Your task to perform on an android device: Show me popular videos on Youtube Image 0: 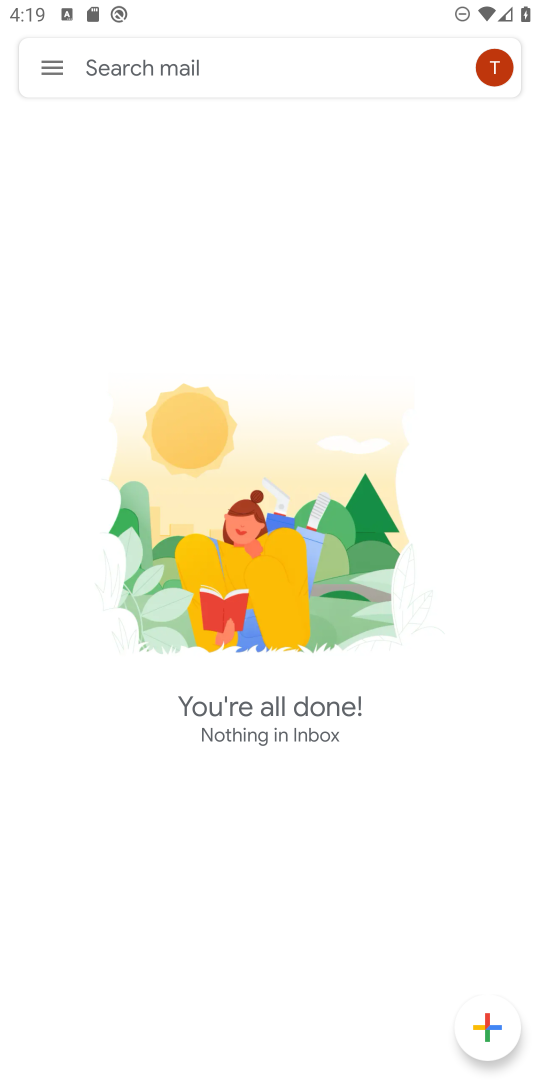
Step 0: press home button
Your task to perform on an android device: Show me popular videos on Youtube Image 1: 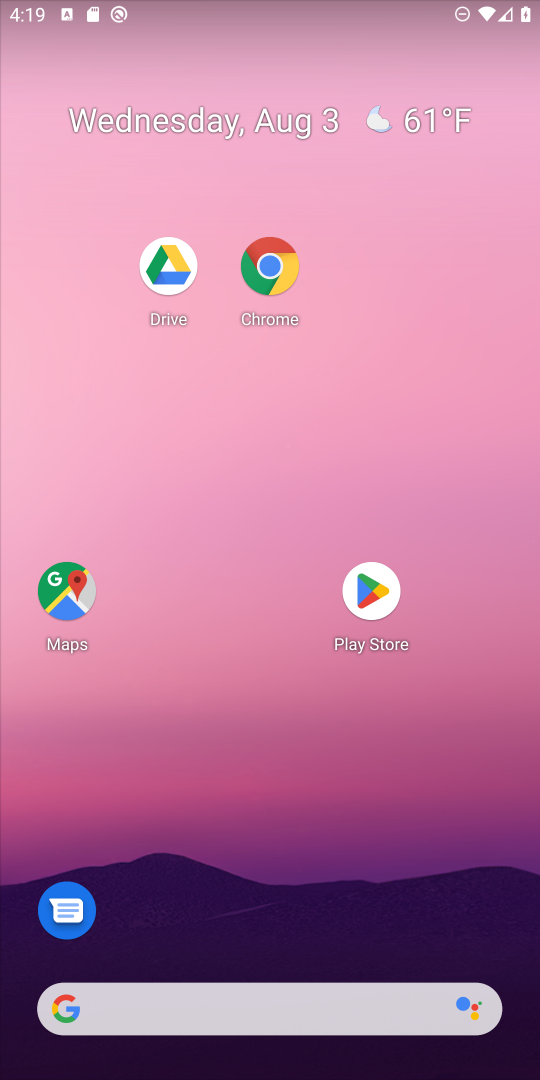
Step 1: drag from (367, 989) to (538, 866)
Your task to perform on an android device: Show me popular videos on Youtube Image 2: 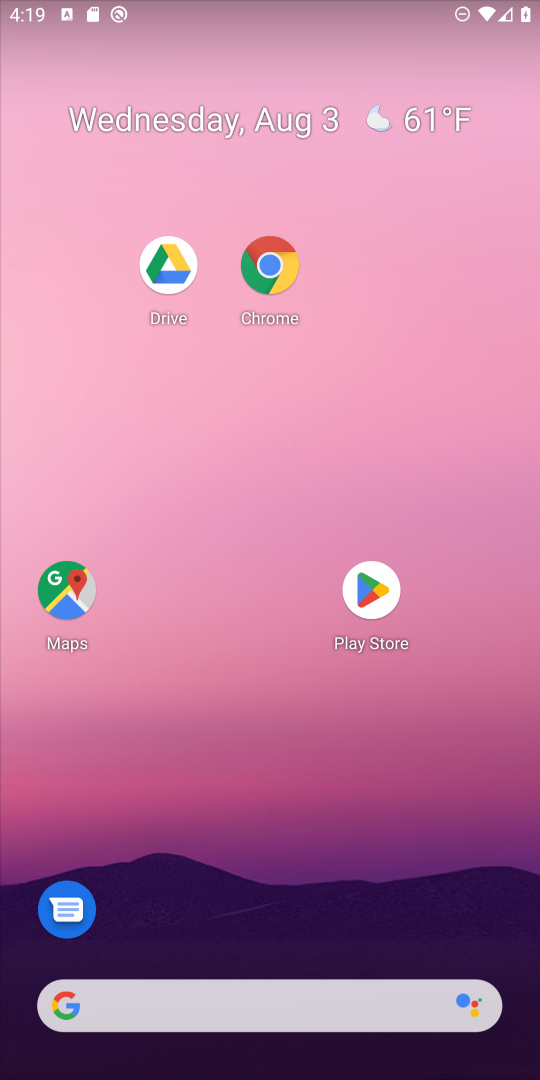
Step 2: click (469, 949)
Your task to perform on an android device: Show me popular videos on Youtube Image 3: 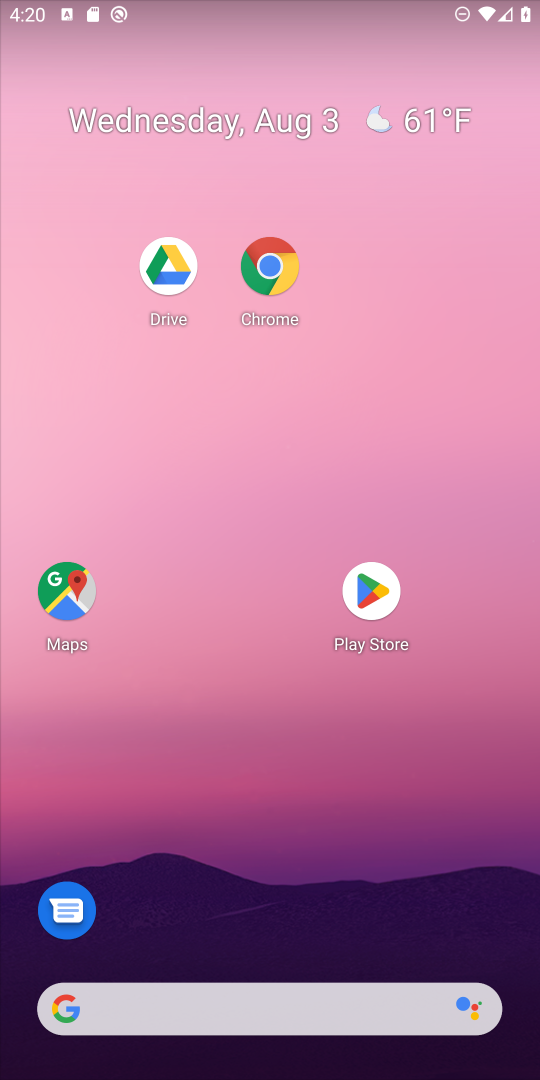
Step 3: drag from (338, 993) to (384, 50)
Your task to perform on an android device: Show me popular videos on Youtube Image 4: 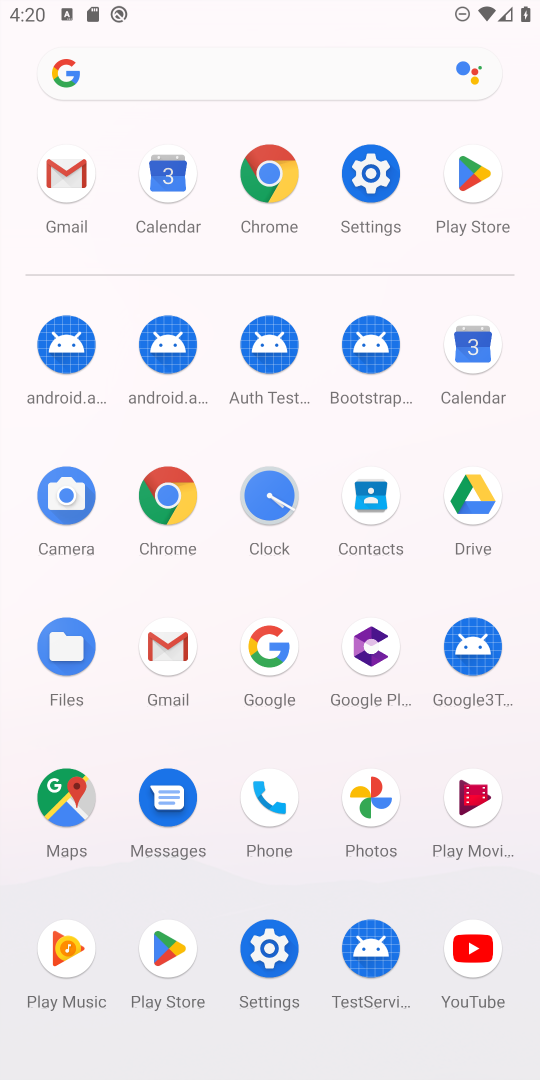
Step 4: click (472, 953)
Your task to perform on an android device: Show me popular videos on Youtube Image 5: 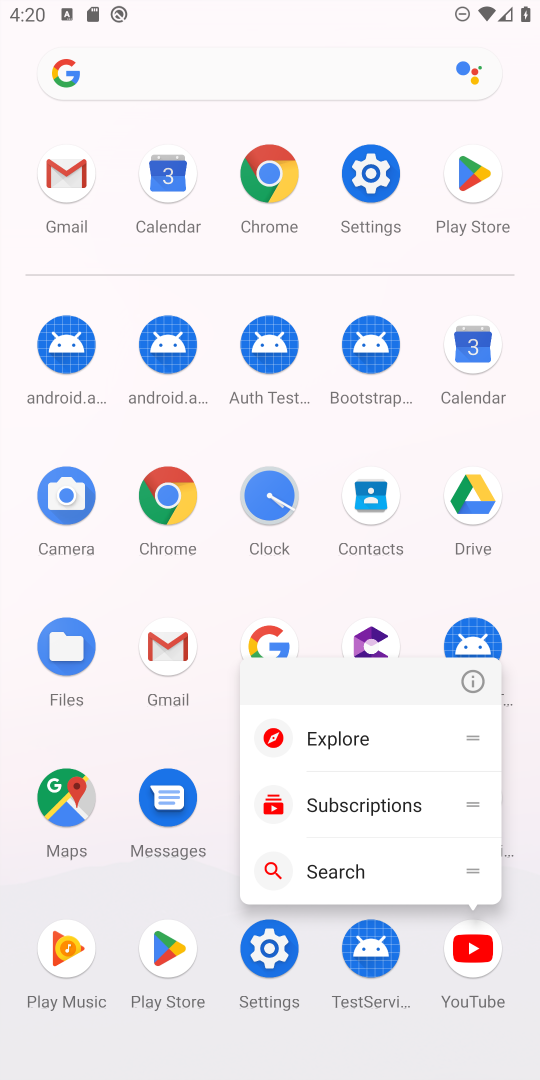
Step 5: click (472, 953)
Your task to perform on an android device: Show me popular videos on Youtube Image 6: 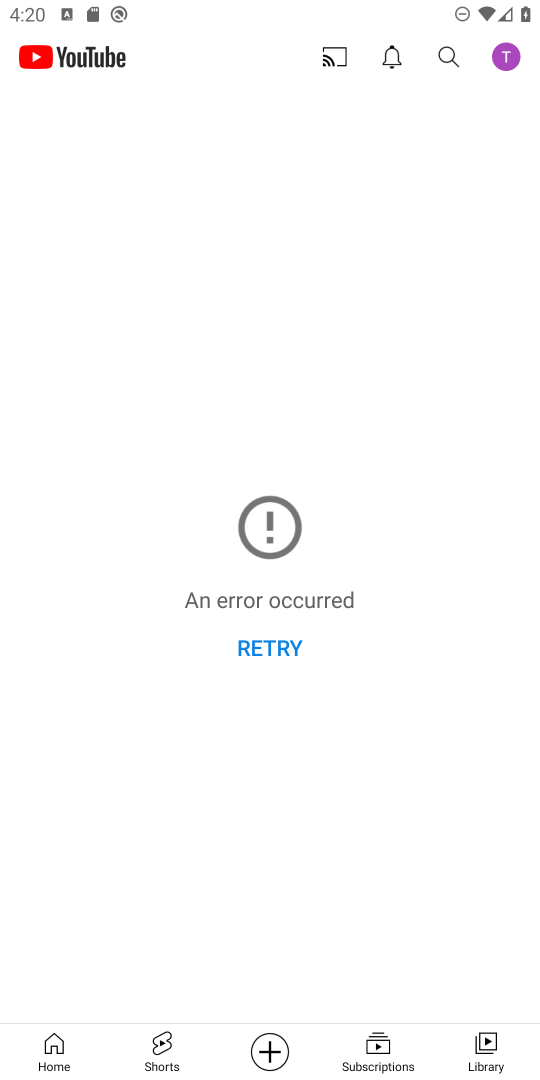
Step 6: click (47, 1044)
Your task to perform on an android device: Show me popular videos on Youtube Image 7: 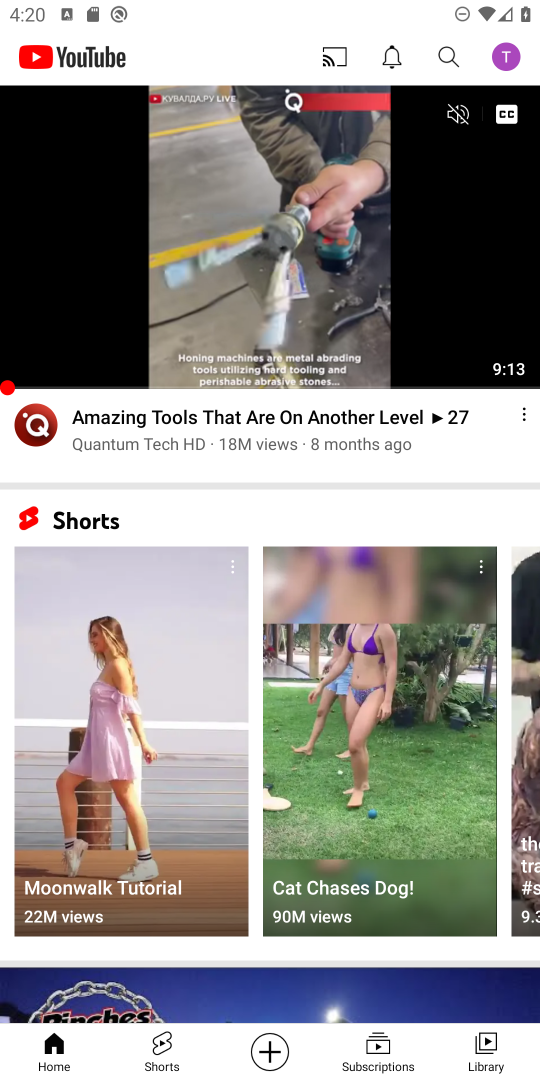
Step 7: task complete